Your task to perform on an android device: Turn off the flashlight Image 0: 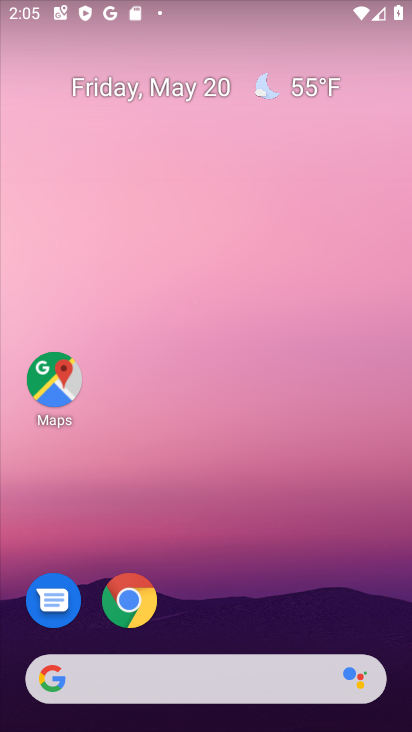
Step 0: drag from (235, 550) to (222, 451)
Your task to perform on an android device: Turn off the flashlight Image 1: 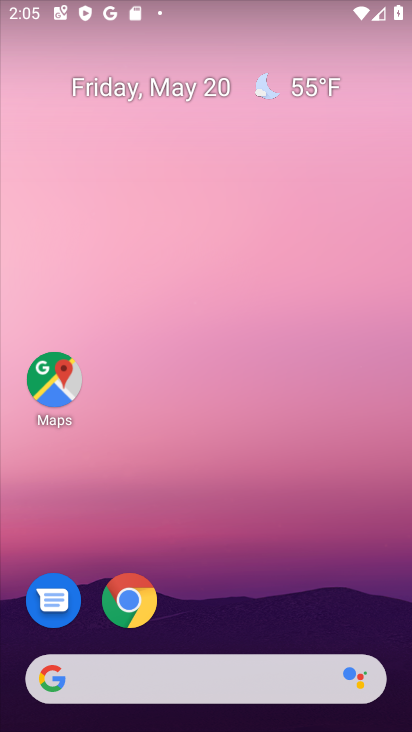
Step 1: task complete